Your task to perform on an android device: set the timer Image 0: 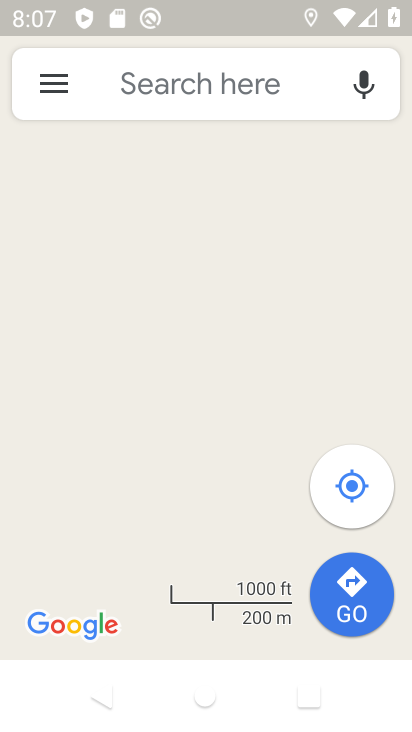
Step 0: press home button
Your task to perform on an android device: set the timer Image 1: 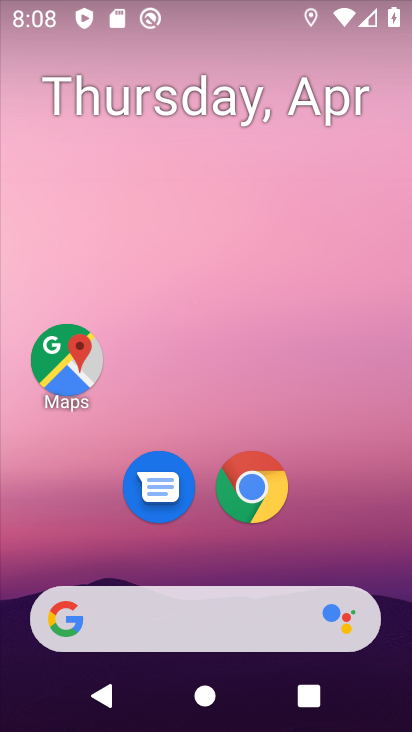
Step 1: drag from (356, 514) to (271, 116)
Your task to perform on an android device: set the timer Image 2: 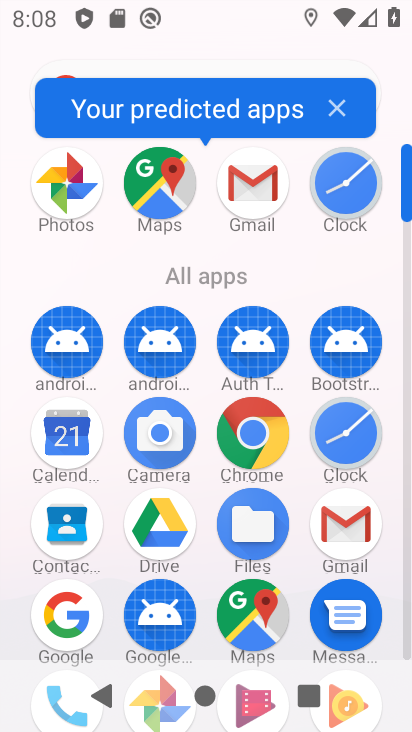
Step 2: click (348, 183)
Your task to perform on an android device: set the timer Image 3: 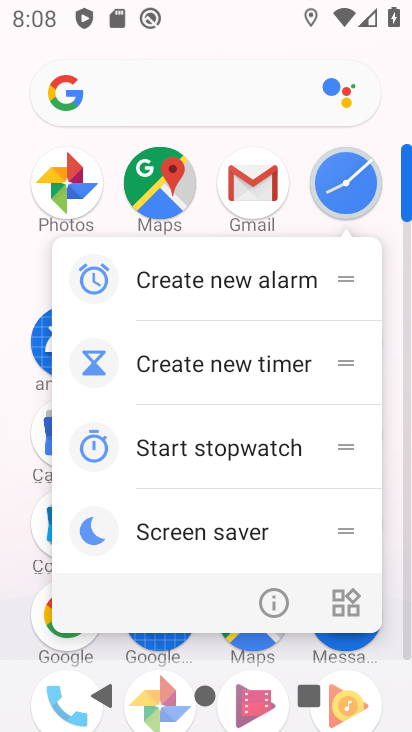
Step 3: click (221, 366)
Your task to perform on an android device: set the timer Image 4: 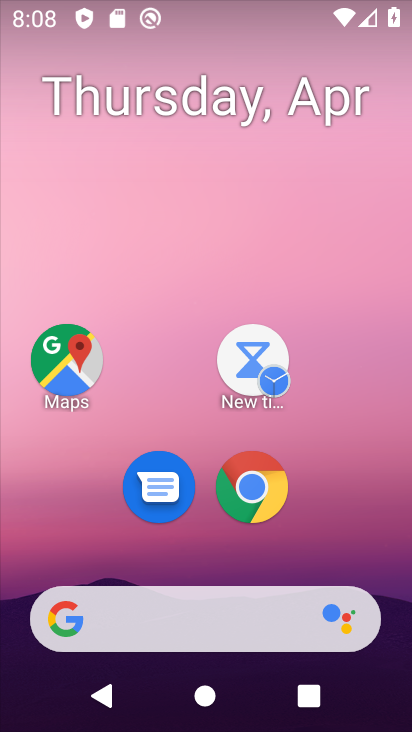
Step 4: click (244, 356)
Your task to perform on an android device: set the timer Image 5: 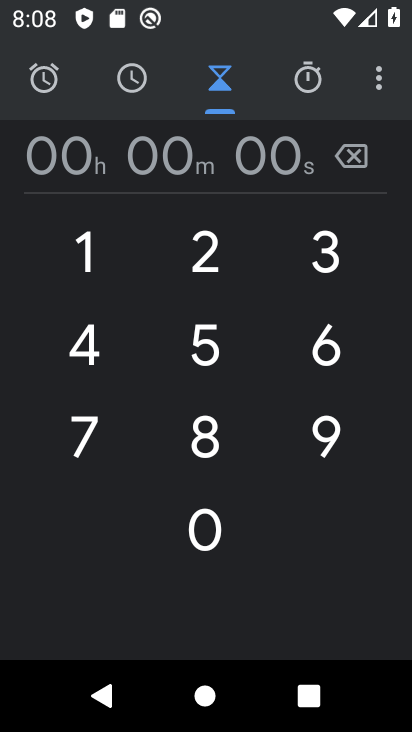
Step 5: click (213, 429)
Your task to perform on an android device: set the timer Image 6: 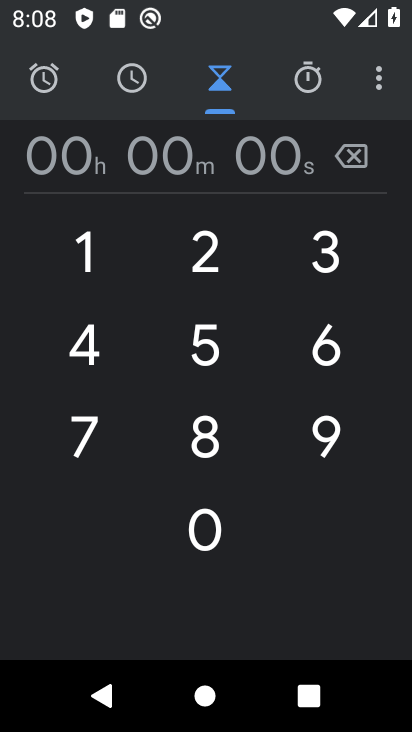
Step 6: click (206, 365)
Your task to perform on an android device: set the timer Image 7: 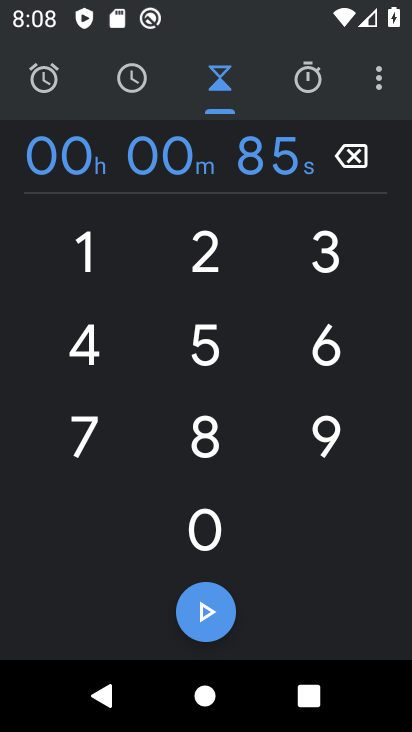
Step 7: click (83, 356)
Your task to perform on an android device: set the timer Image 8: 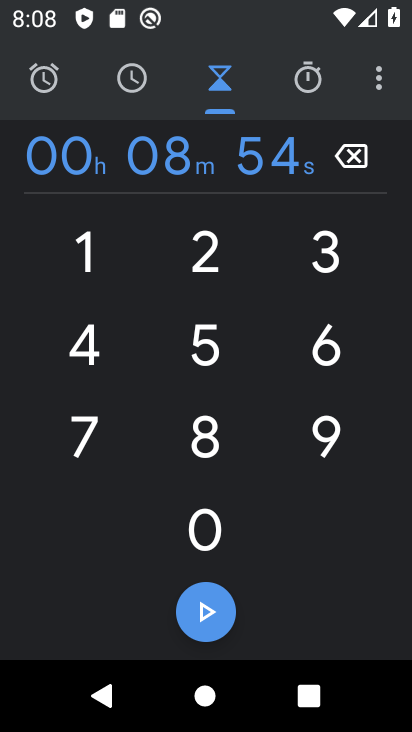
Step 8: click (213, 618)
Your task to perform on an android device: set the timer Image 9: 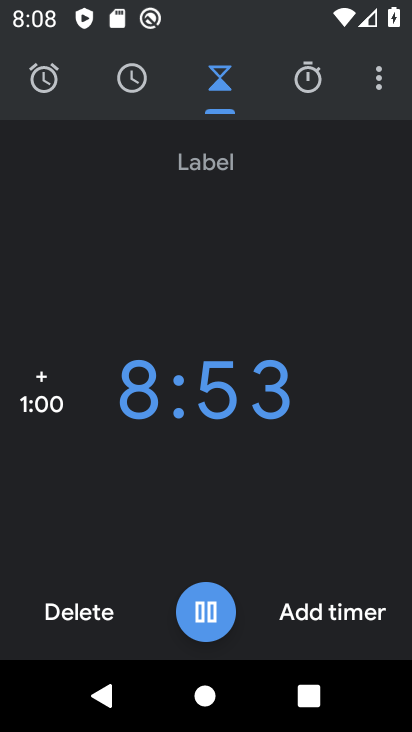
Step 9: click (337, 621)
Your task to perform on an android device: set the timer Image 10: 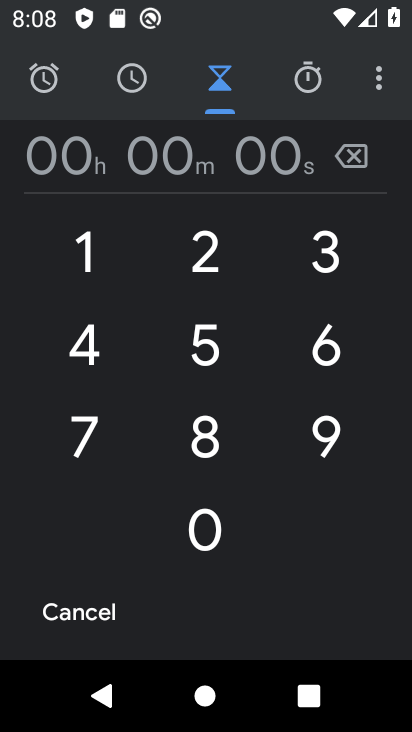
Step 10: task complete